Your task to perform on an android device: Check the weather Image 0: 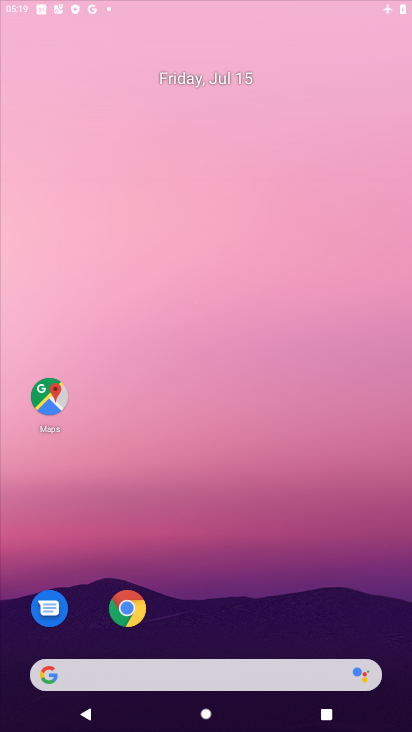
Step 0: drag from (159, 110) to (221, 87)
Your task to perform on an android device: Check the weather Image 1: 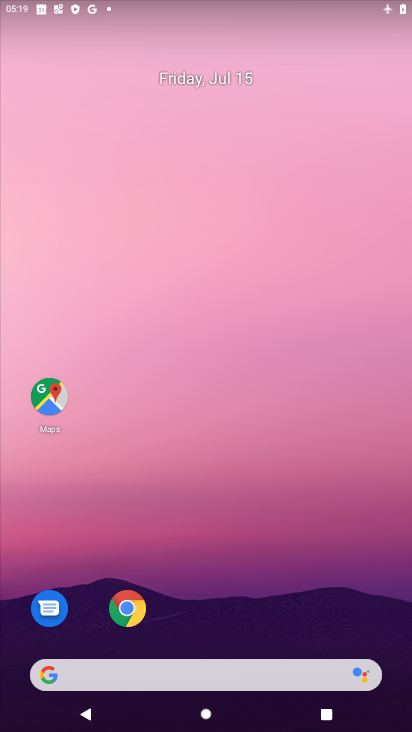
Step 1: drag from (312, 576) to (294, 58)
Your task to perform on an android device: Check the weather Image 2: 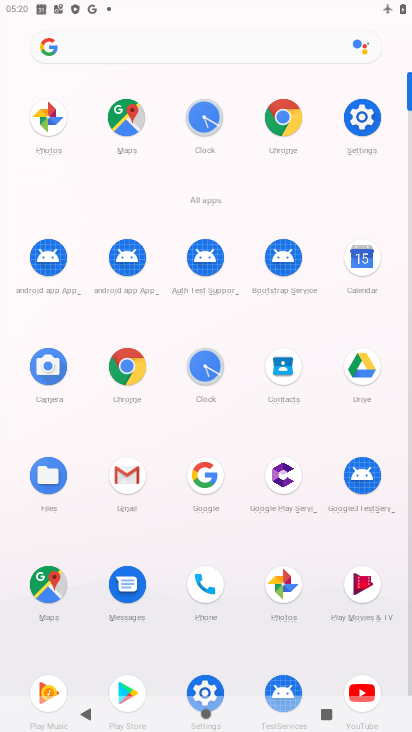
Step 2: click (188, 473)
Your task to perform on an android device: Check the weather Image 3: 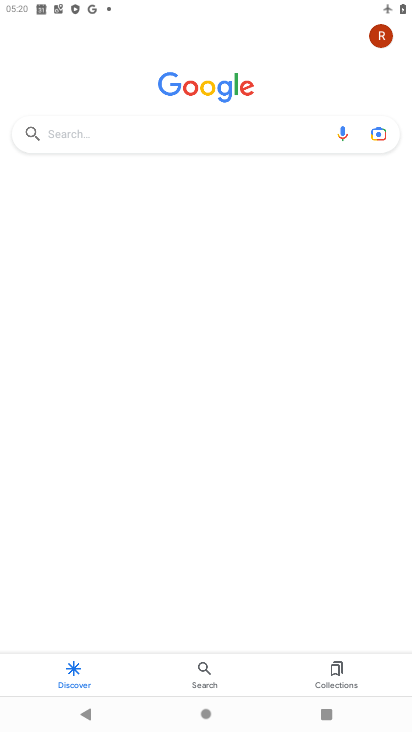
Step 3: click (140, 138)
Your task to perform on an android device: Check the weather Image 4: 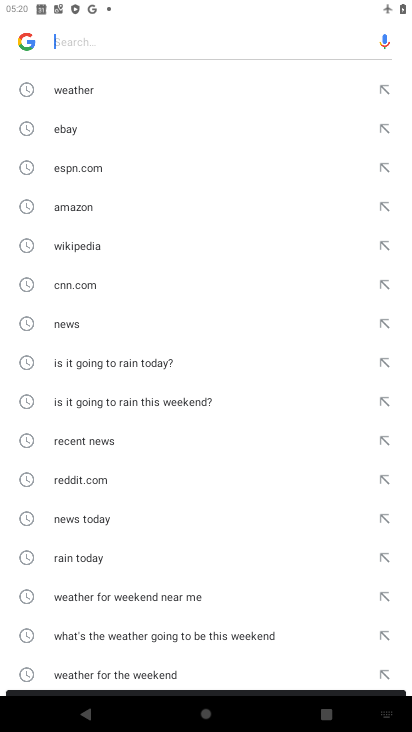
Step 4: click (51, 94)
Your task to perform on an android device: Check the weather Image 5: 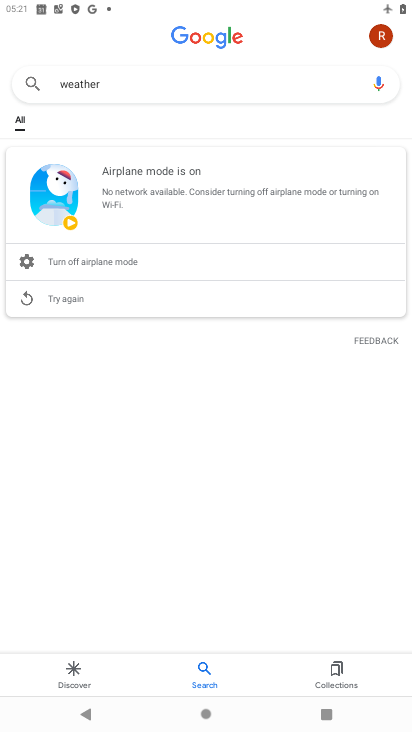
Step 5: task complete